Your task to perform on an android device: open device folders in google photos Image 0: 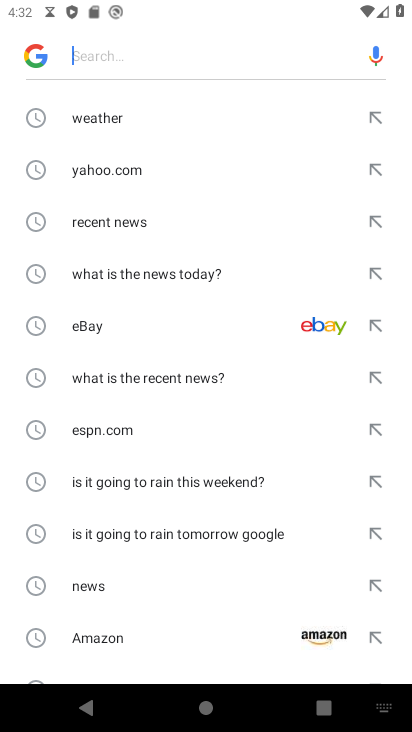
Step 0: press home button
Your task to perform on an android device: open device folders in google photos Image 1: 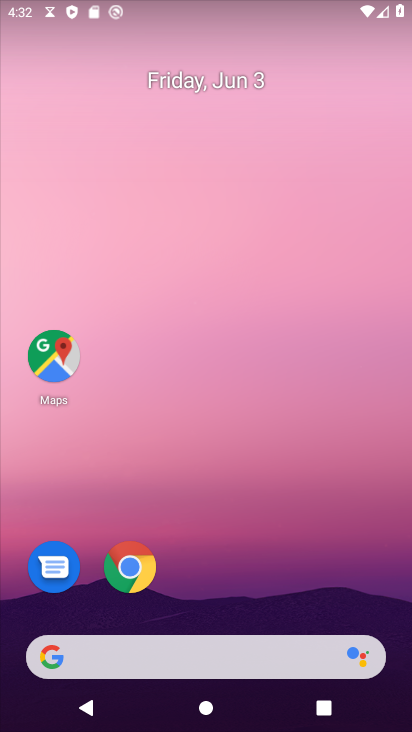
Step 1: drag from (237, 546) to (220, 31)
Your task to perform on an android device: open device folders in google photos Image 2: 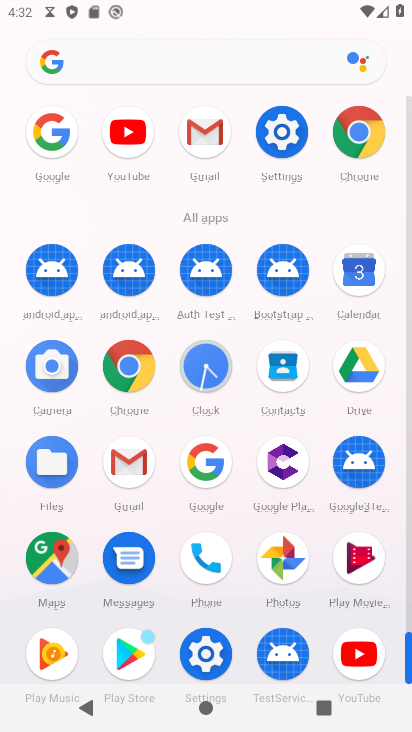
Step 2: click (283, 556)
Your task to perform on an android device: open device folders in google photos Image 3: 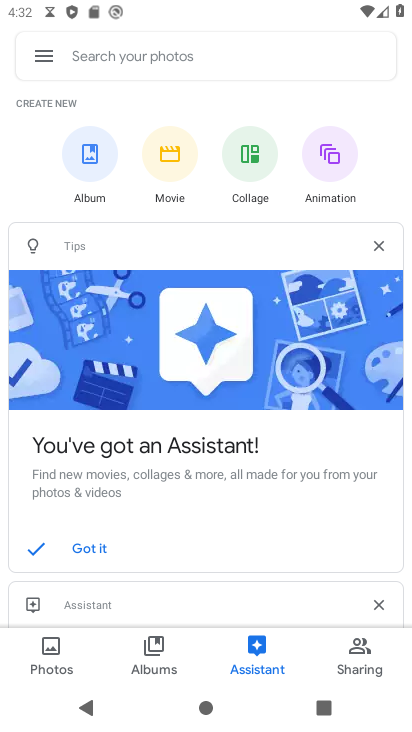
Step 3: click (45, 50)
Your task to perform on an android device: open device folders in google photos Image 4: 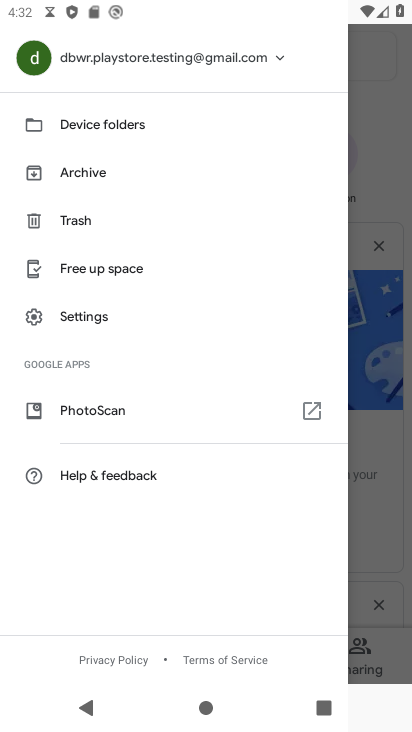
Step 4: click (99, 125)
Your task to perform on an android device: open device folders in google photos Image 5: 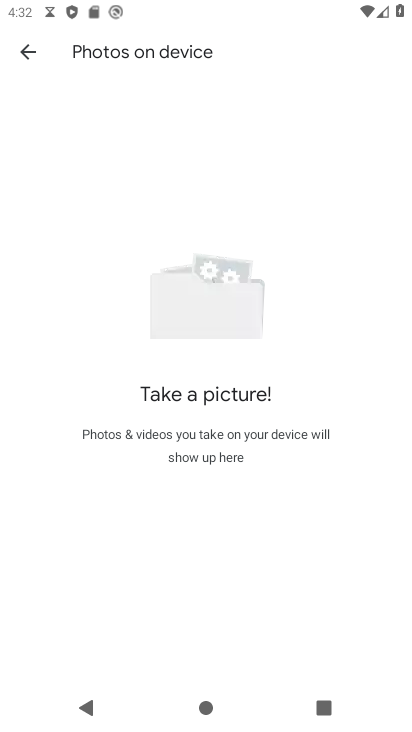
Step 5: task complete